Your task to perform on an android device: Go to accessibility settings Image 0: 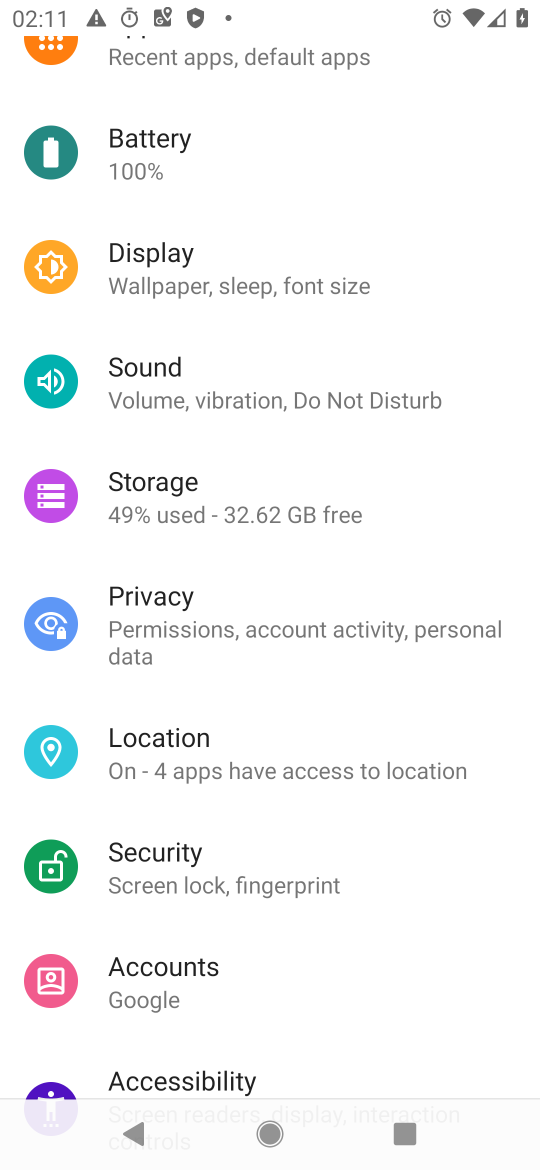
Step 0: click (161, 1067)
Your task to perform on an android device: Go to accessibility settings Image 1: 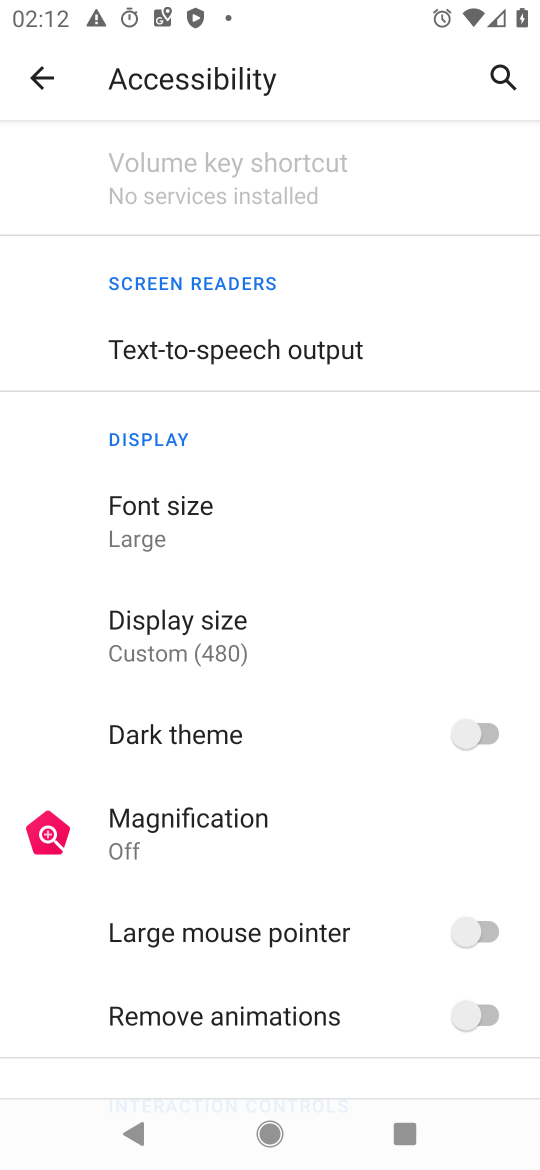
Step 1: task complete